Your task to perform on an android device: install app "Messenger Lite" Image 0: 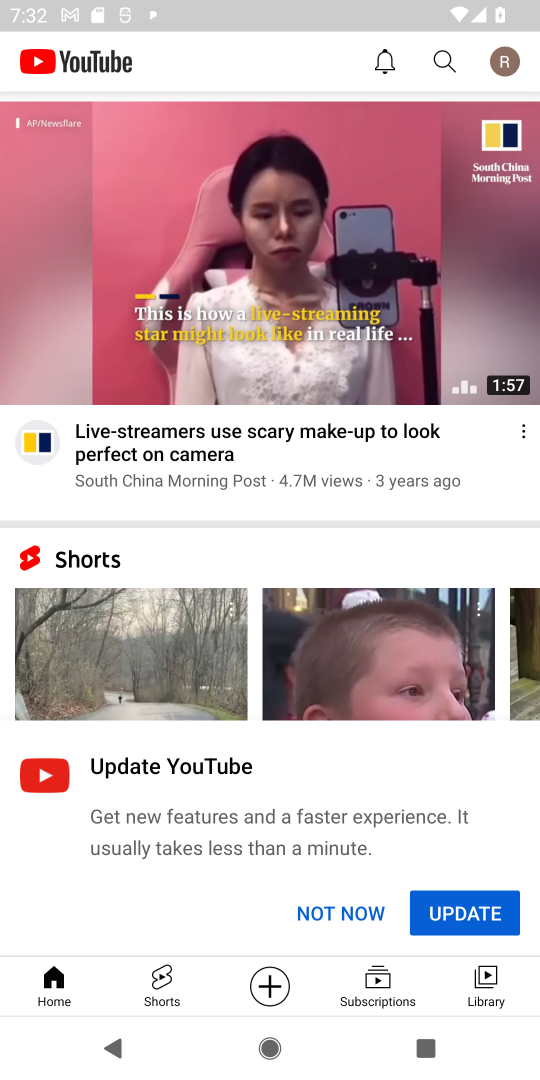
Step 0: press home button
Your task to perform on an android device: install app "Messenger Lite" Image 1: 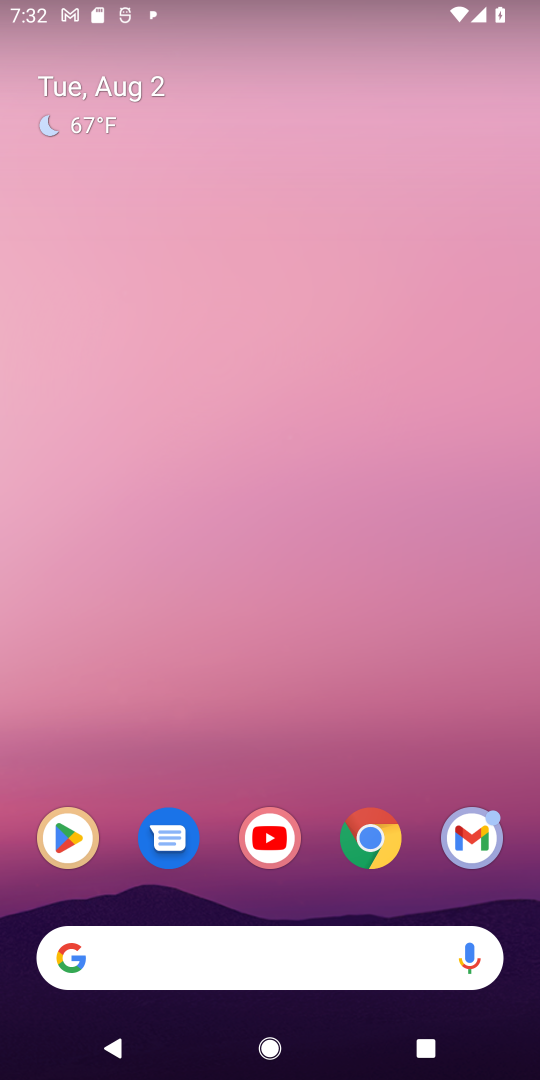
Step 1: click (62, 831)
Your task to perform on an android device: install app "Messenger Lite" Image 2: 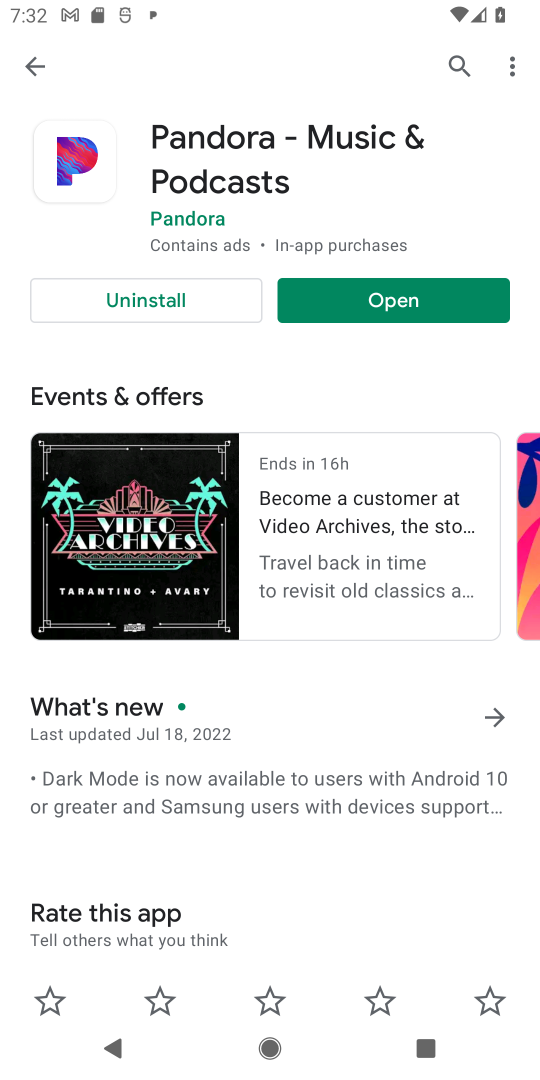
Step 2: click (470, 70)
Your task to perform on an android device: install app "Messenger Lite" Image 3: 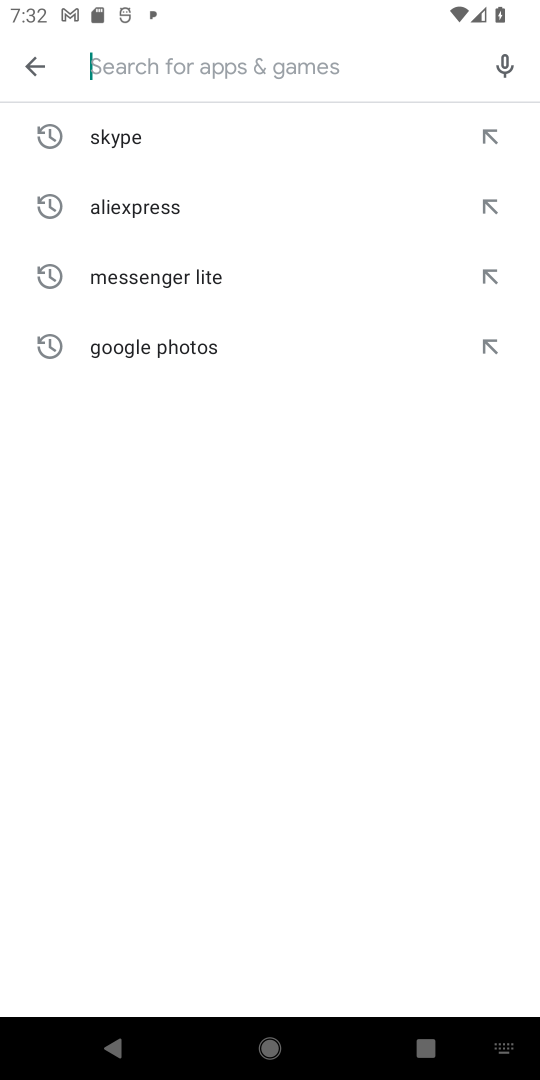
Step 3: type "messenger lite"
Your task to perform on an android device: install app "Messenger Lite" Image 4: 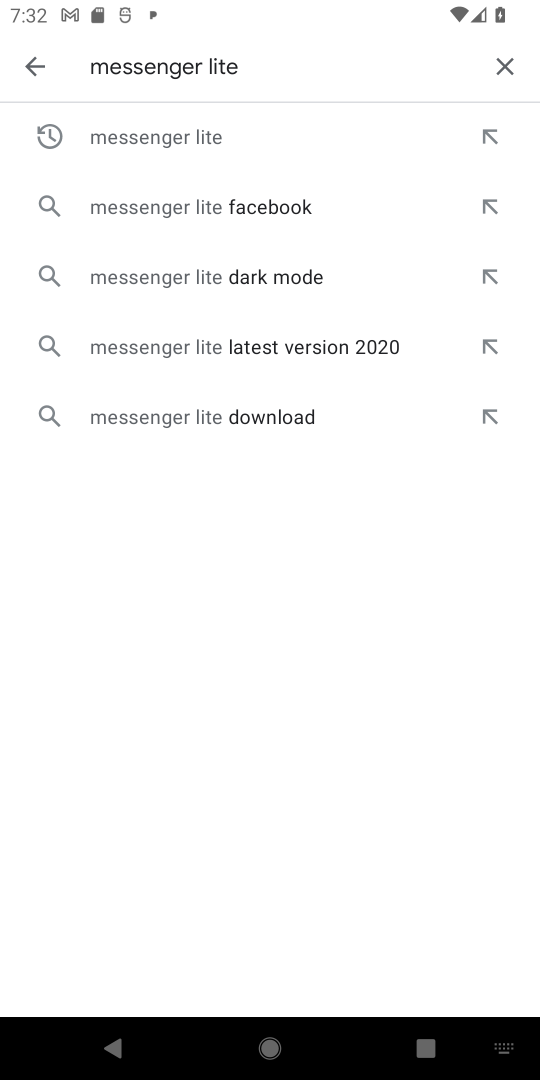
Step 4: click (206, 125)
Your task to perform on an android device: install app "Messenger Lite" Image 5: 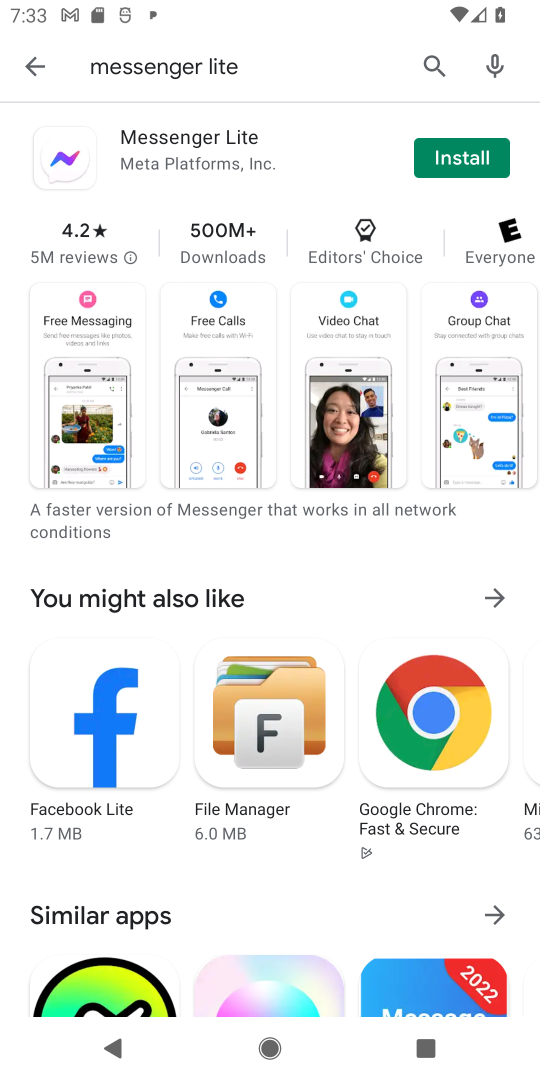
Step 5: click (192, 143)
Your task to perform on an android device: install app "Messenger Lite" Image 6: 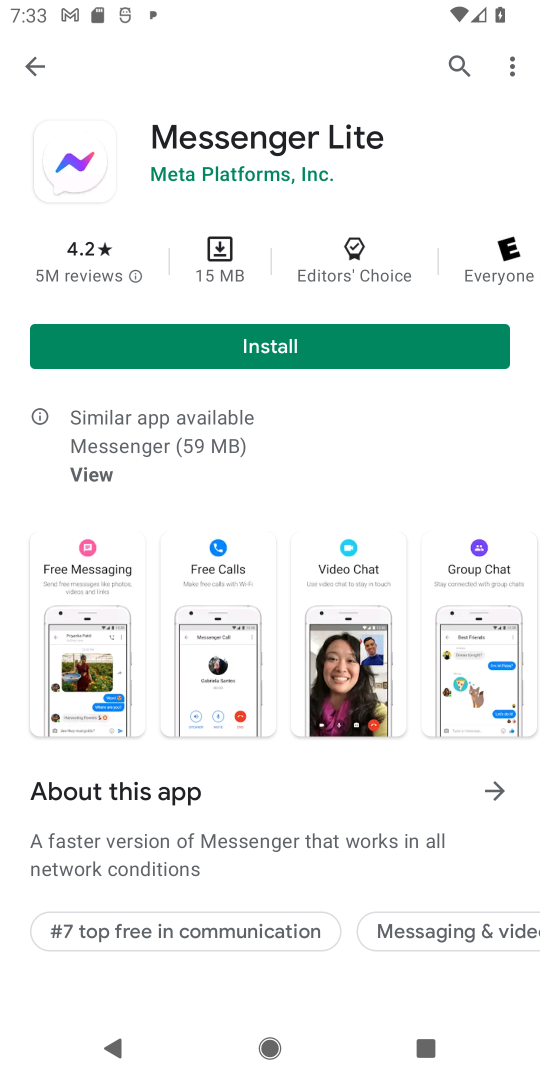
Step 6: click (266, 358)
Your task to perform on an android device: install app "Messenger Lite" Image 7: 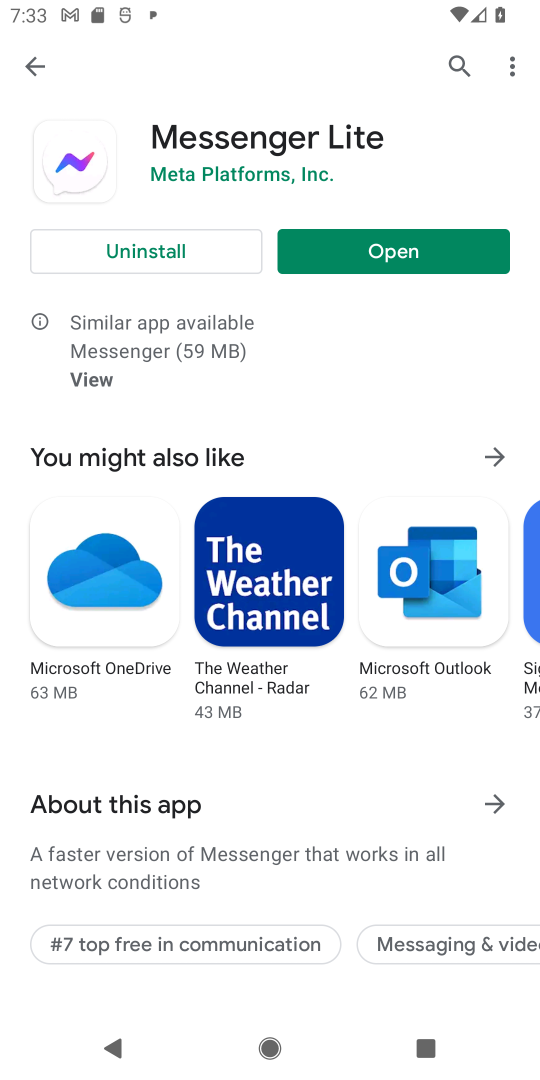
Step 7: task complete